Your task to perform on an android device: Go to ESPN.com Image 0: 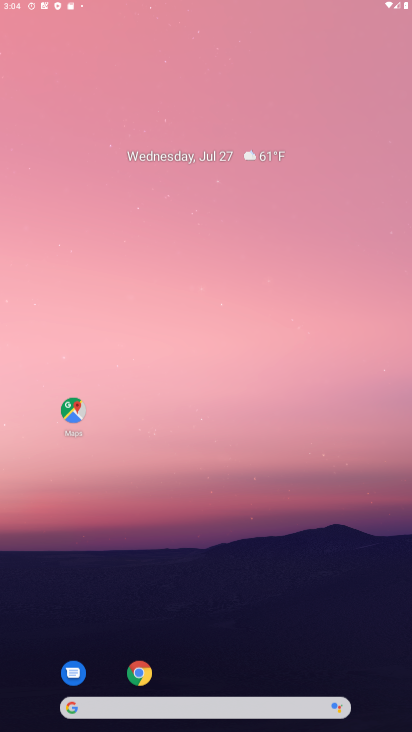
Step 0: drag from (186, 374) to (223, 196)
Your task to perform on an android device: Go to ESPN.com Image 1: 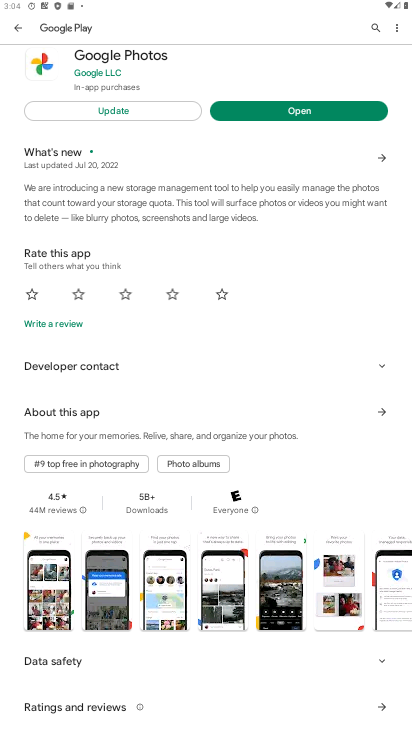
Step 1: press home button
Your task to perform on an android device: Go to ESPN.com Image 2: 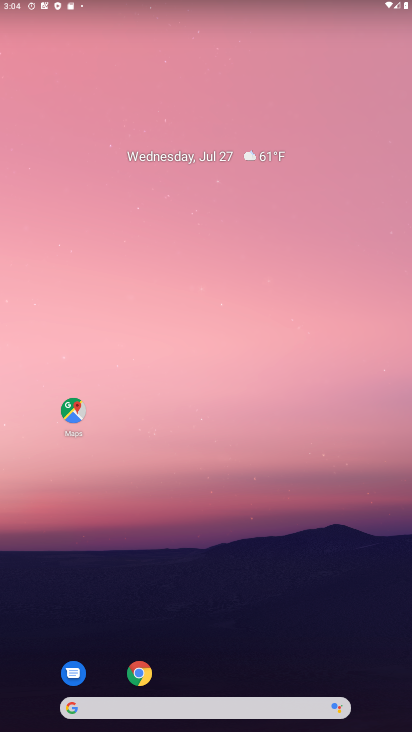
Step 2: click (113, 708)
Your task to perform on an android device: Go to ESPN.com Image 3: 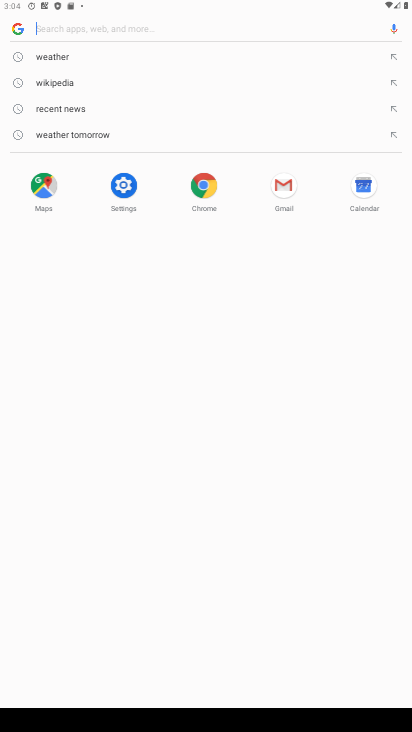
Step 3: type "ESPN.com"
Your task to perform on an android device: Go to ESPN.com Image 4: 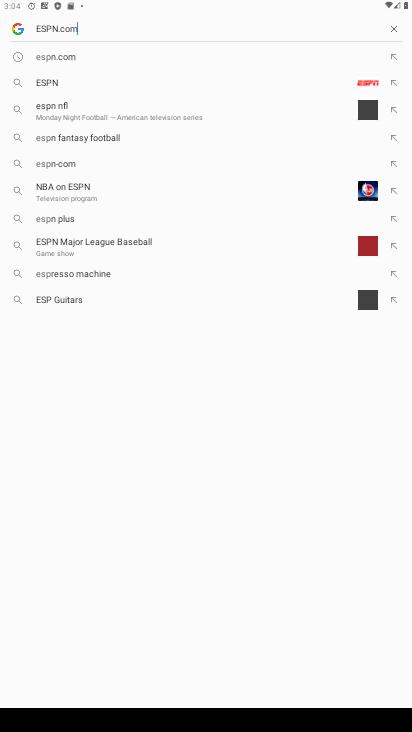
Step 4: type ""
Your task to perform on an android device: Go to ESPN.com Image 5: 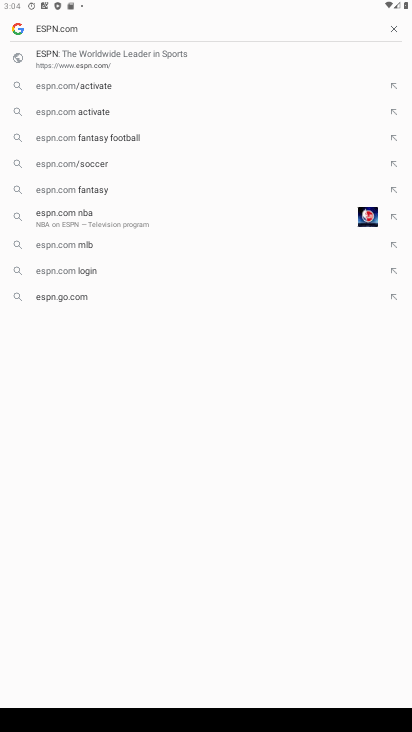
Step 5: click (47, 62)
Your task to perform on an android device: Go to ESPN.com Image 6: 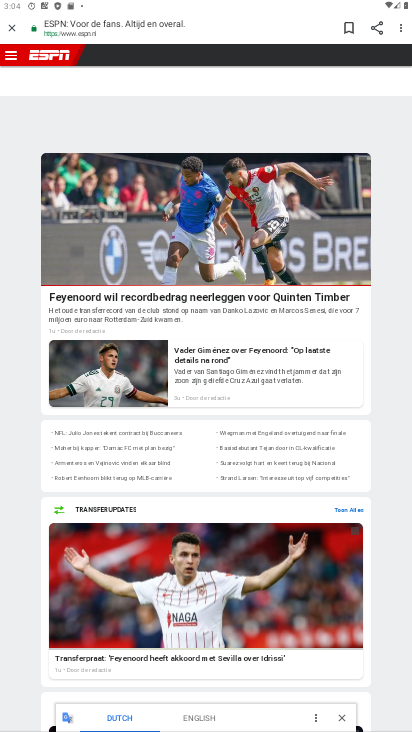
Step 6: task complete